Your task to perform on an android device: Play the last video I watched on Youtube Image 0: 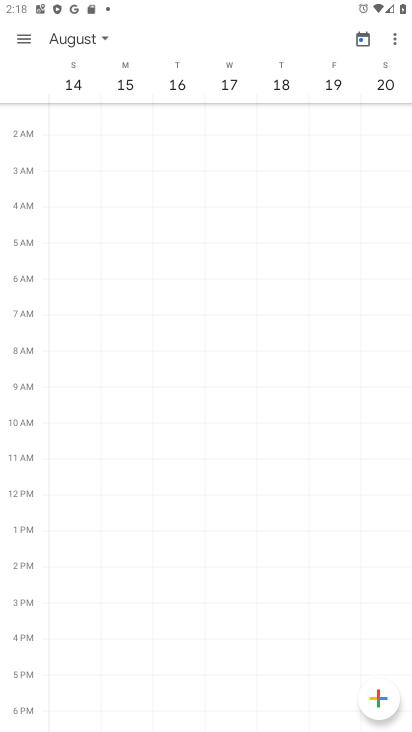
Step 0: press home button
Your task to perform on an android device: Play the last video I watched on Youtube Image 1: 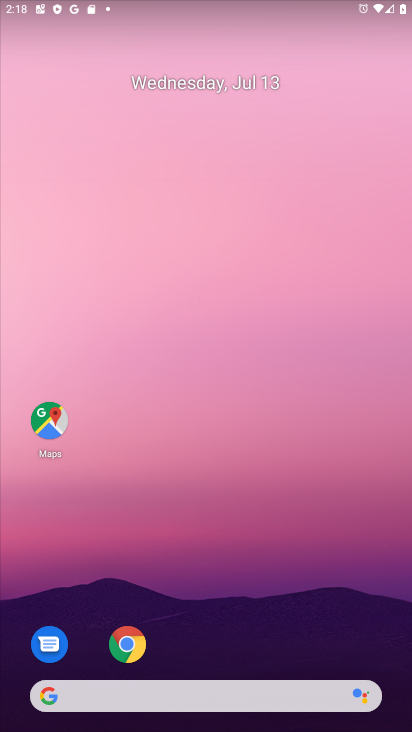
Step 1: drag from (178, 677) to (170, 50)
Your task to perform on an android device: Play the last video I watched on Youtube Image 2: 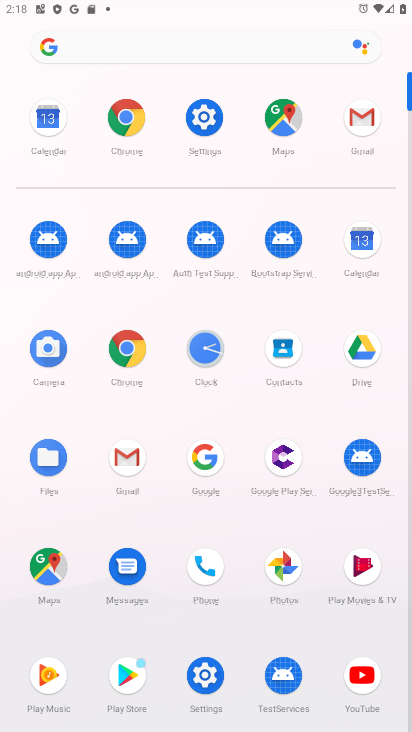
Step 2: click (366, 687)
Your task to perform on an android device: Play the last video I watched on Youtube Image 3: 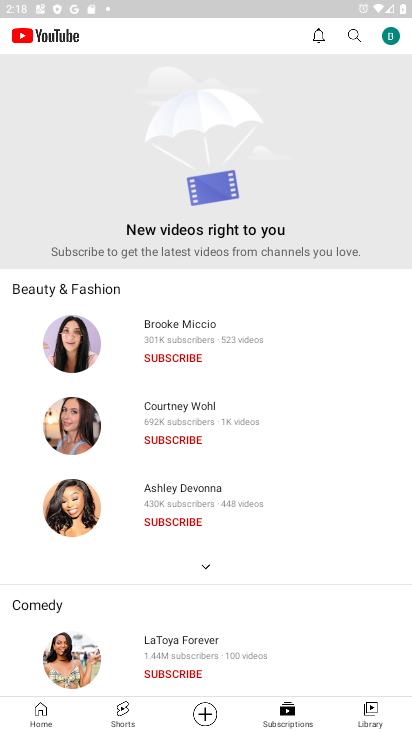
Step 3: click (369, 711)
Your task to perform on an android device: Play the last video I watched on Youtube Image 4: 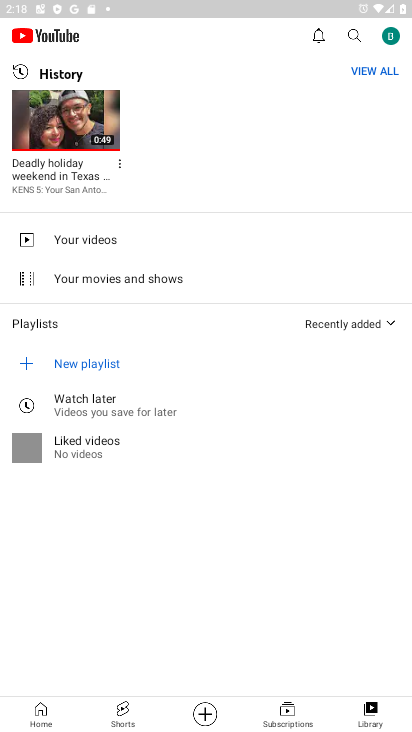
Step 4: click (80, 140)
Your task to perform on an android device: Play the last video I watched on Youtube Image 5: 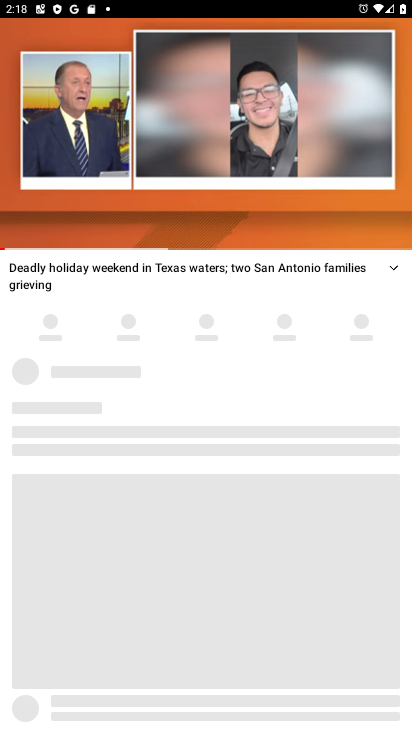
Step 5: click (181, 110)
Your task to perform on an android device: Play the last video I watched on Youtube Image 6: 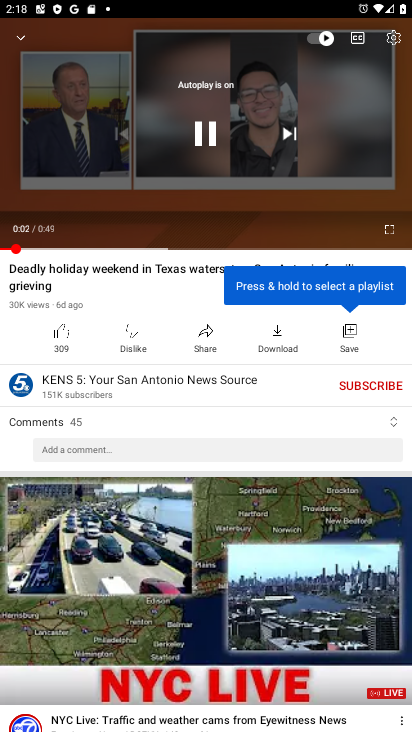
Step 6: click (203, 124)
Your task to perform on an android device: Play the last video I watched on Youtube Image 7: 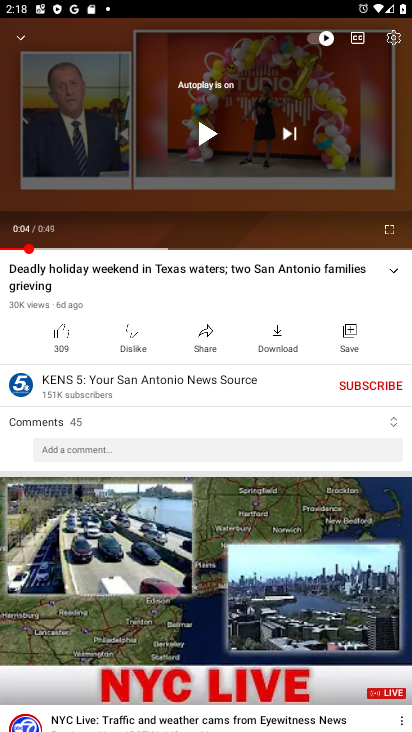
Step 7: task complete